Your task to perform on an android device: Open Maps and search for coffee Image 0: 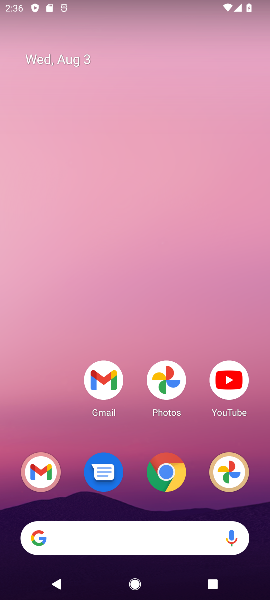
Step 0: drag from (205, 508) to (103, 19)
Your task to perform on an android device: Open Maps and search for coffee Image 1: 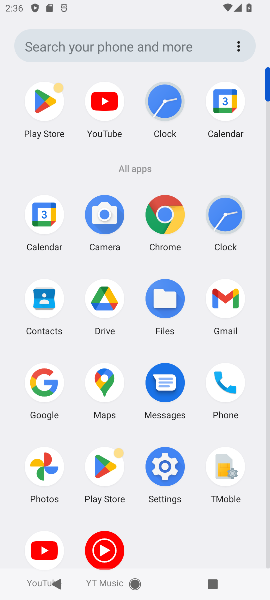
Step 1: click (98, 384)
Your task to perform on an android device: Open Maps and search for coffee Image 2: 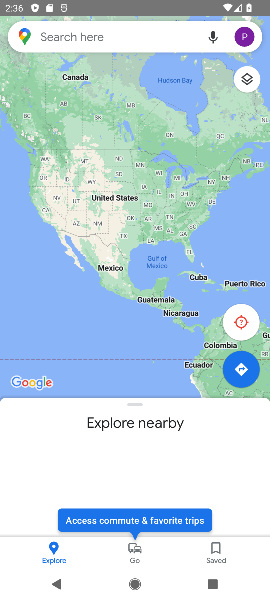
Step 2: click (61, 42)
Your task to perform on an android device: Open Maps and search for coffee Image 3: 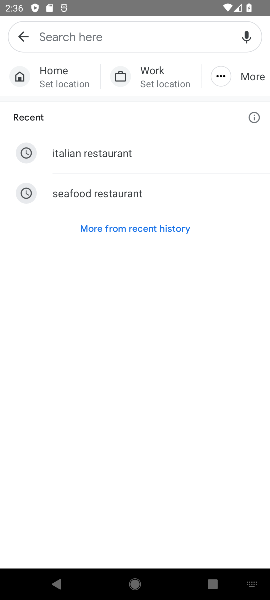
Step 3: type "coffee"
Your task to perform on an android device: Open Maps and search for coffee Image 4: 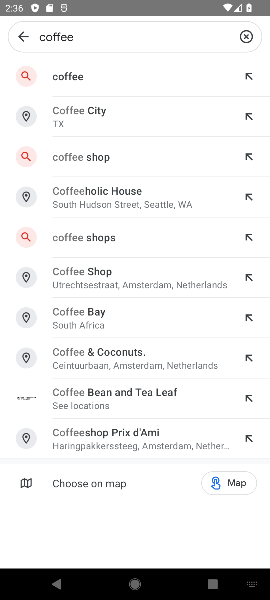
Step 4: click (77, 80)
Your task to perform on an android device: Open Maps and search for coffee Image 5: 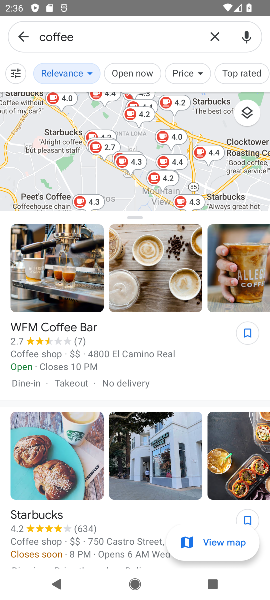
Step 5: task complete